Your task to perform on an android device: Go to Yahoo.com Image 0: 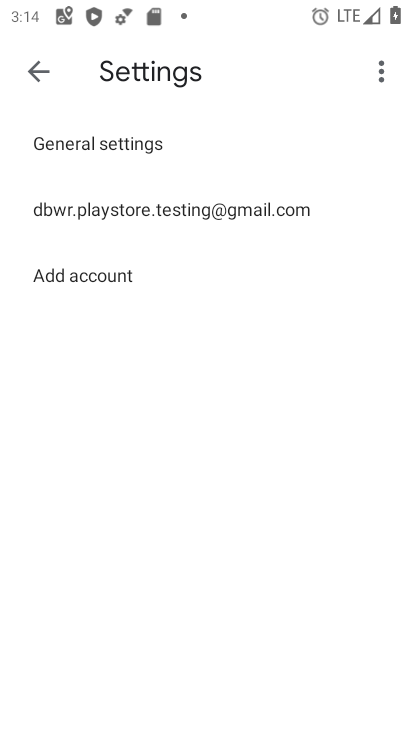
Step 0: press back button
Your task to perform on an android device: Go to Yahoo.com Image 1: 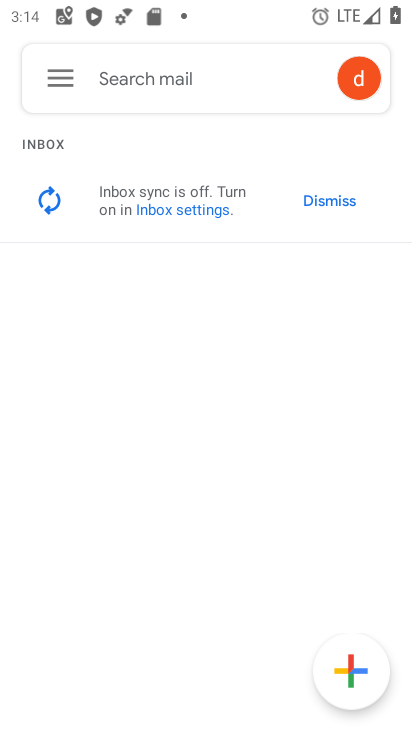
Step 1: press back button
Your task to perform on an android device: Go to Yahoo.com Image 2: 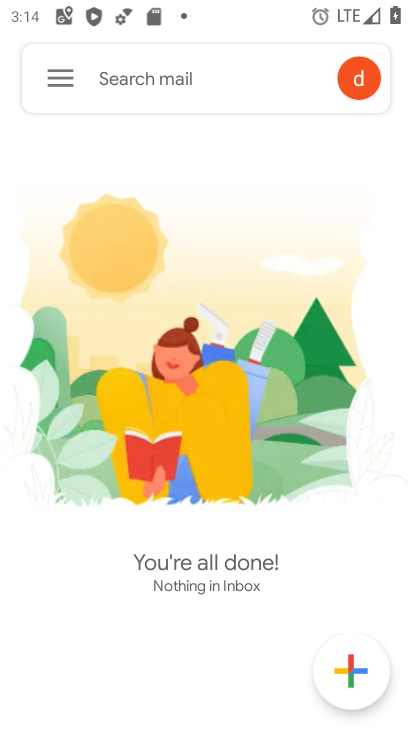
Step 2: press back button
Your task to perform on an android device: Go to Yahoo.com Image 3: 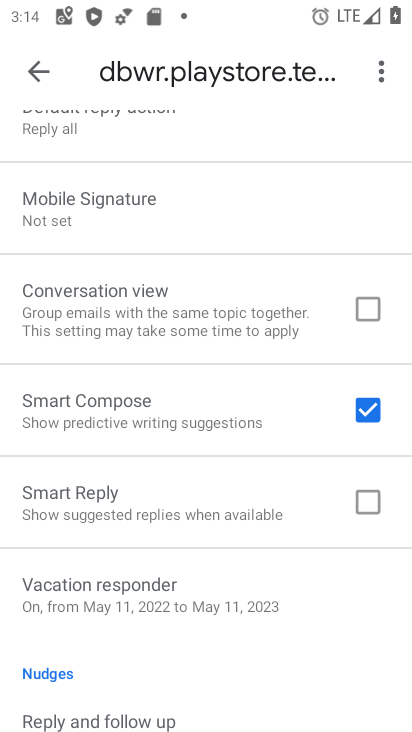
Step 3: press back button
Your task to perform on an android device: Go to Yahoo.com Image 4: 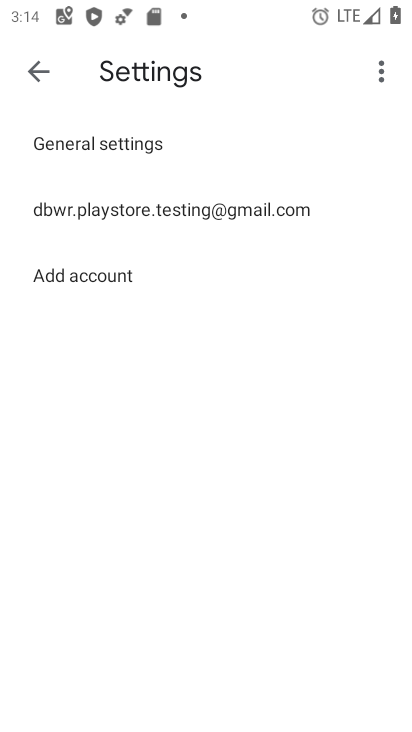
Step 4: press back button
Your task to perform on an android device: Go to Yahoo.com Image 5: 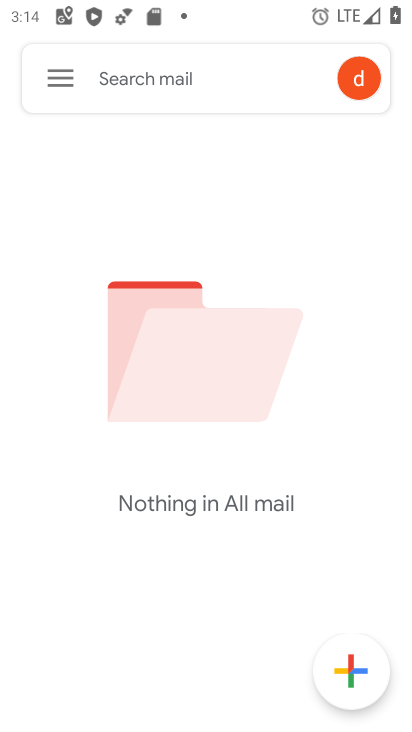
Step 5: press back button
Your task to perform on an android device: Go to Yahoo.com Image 6: 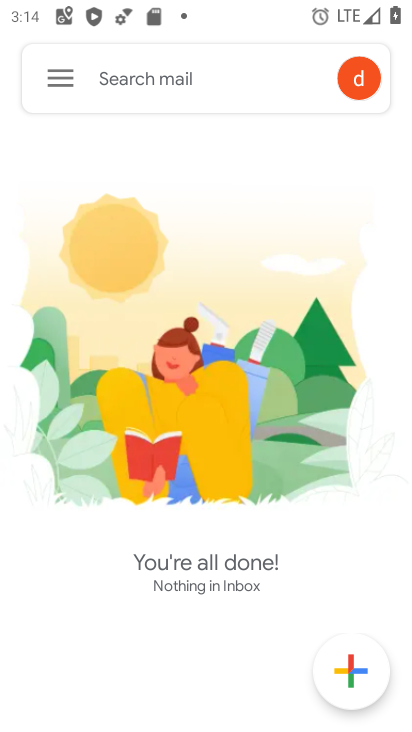
Step 6: press back button
Your task to perform on an android device: Go to Yahoo.com Image 7: 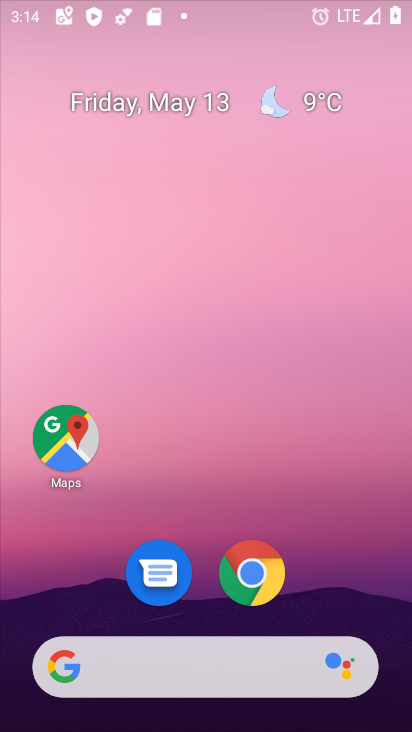
Step 7: press back button
Your task to perform on an android device: Go to Yahoo.com Image 8: 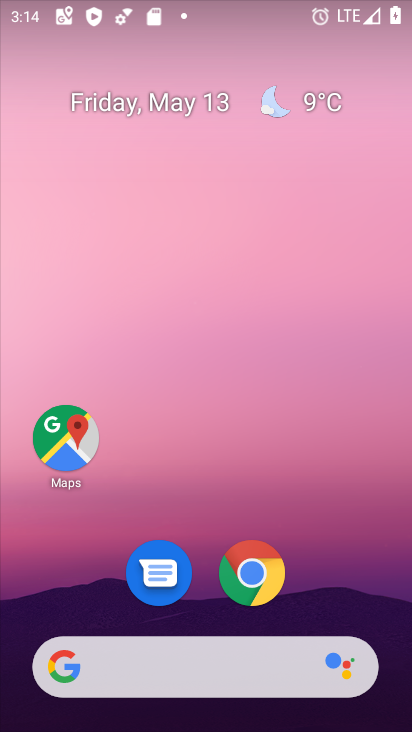
Step 8: click (250, 576)
Your task to perform on an android device: Go to Yahoo.com Image 9: 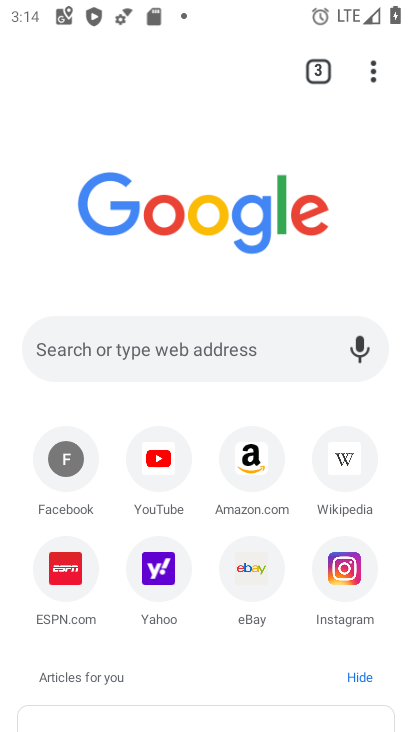
Step 9: click (169, 351)
Your task to perform on an android device: Go to Yahoo.com Image 10: 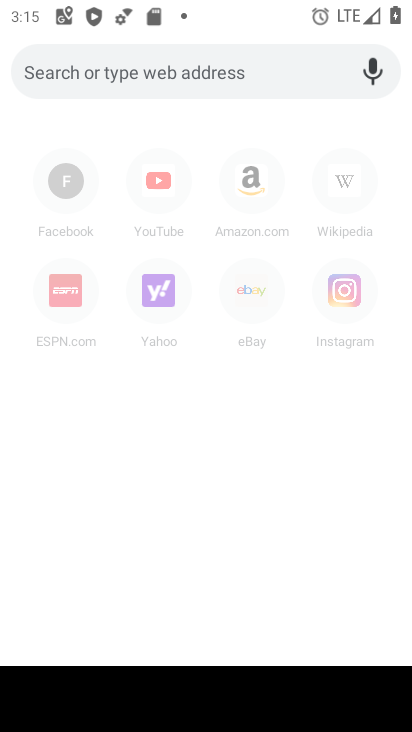
Step 10: type "Yahoo.com"
Your task to perform on an android device: Go to Yahoo.com Image 11: 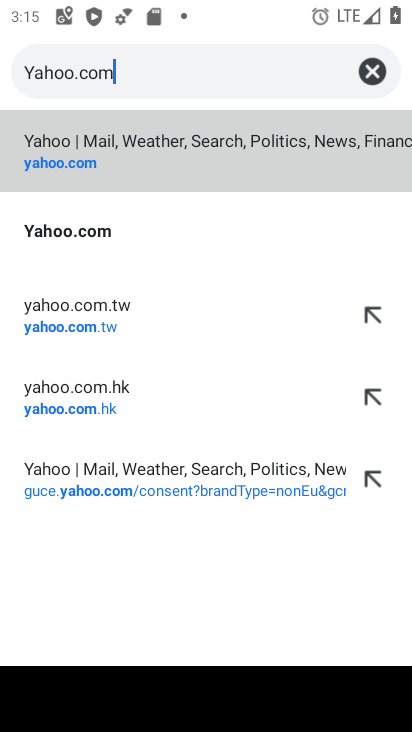
Step 11: click (85, 233)
Your task to perform on an android device: Go to Yahoo.com Image 12: 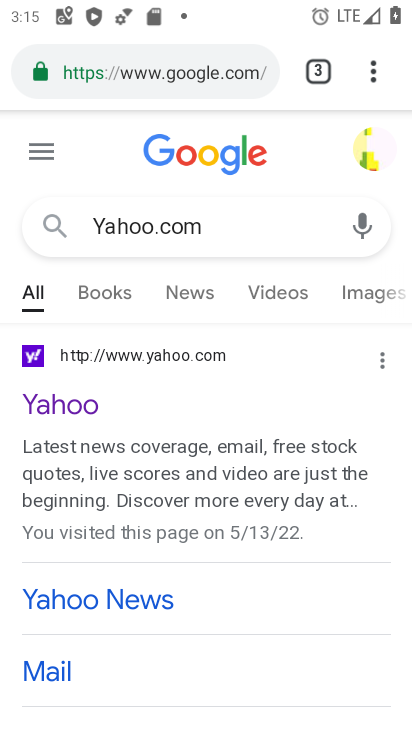
Step 12: click (77, 395)
Your task to perform on an android device: Go to Yahoo.com Image 13: 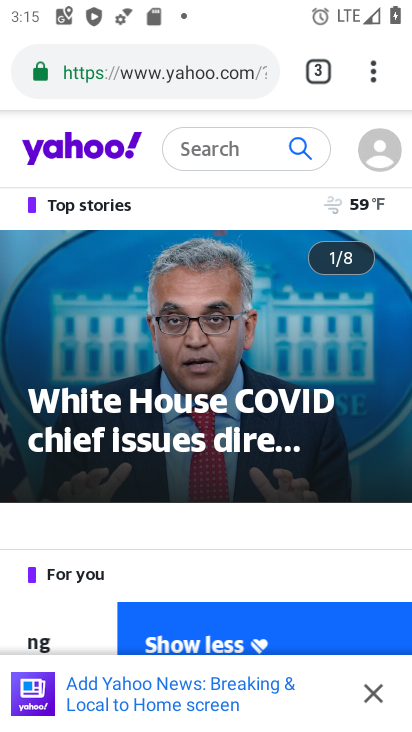
Step 13: task complete